Your task to perform on an android device: turn off airplane mode Image 0: 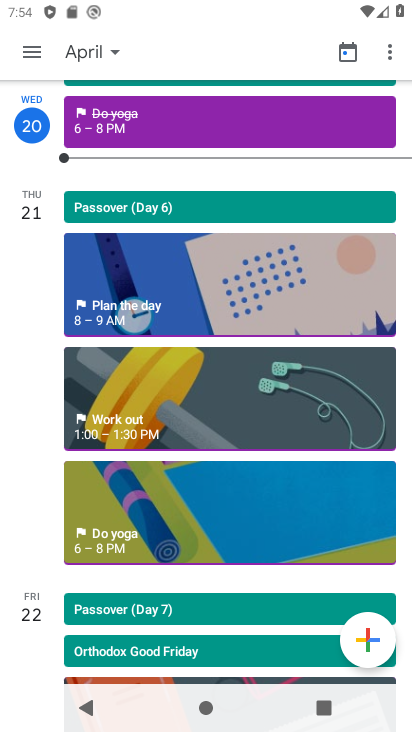
Step 0: press home button
Your task to perform on an android device: turn off airplane mode Image 1: 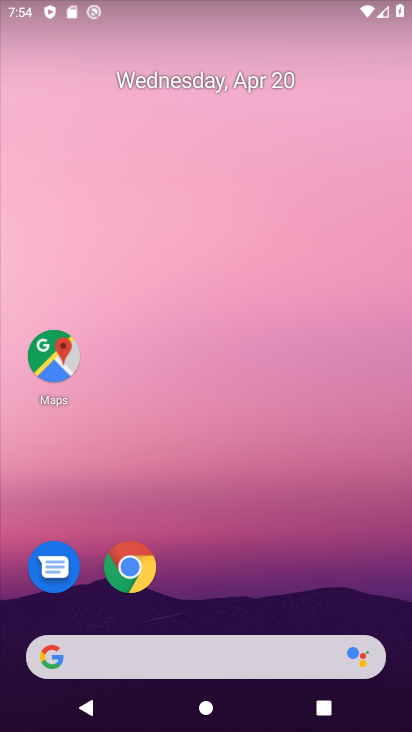
Step 1: task complete